Your task to perform on an android device: open app "Duolingo: language lessons" (install if not already installed), go to login, and select forgot password Image 0: 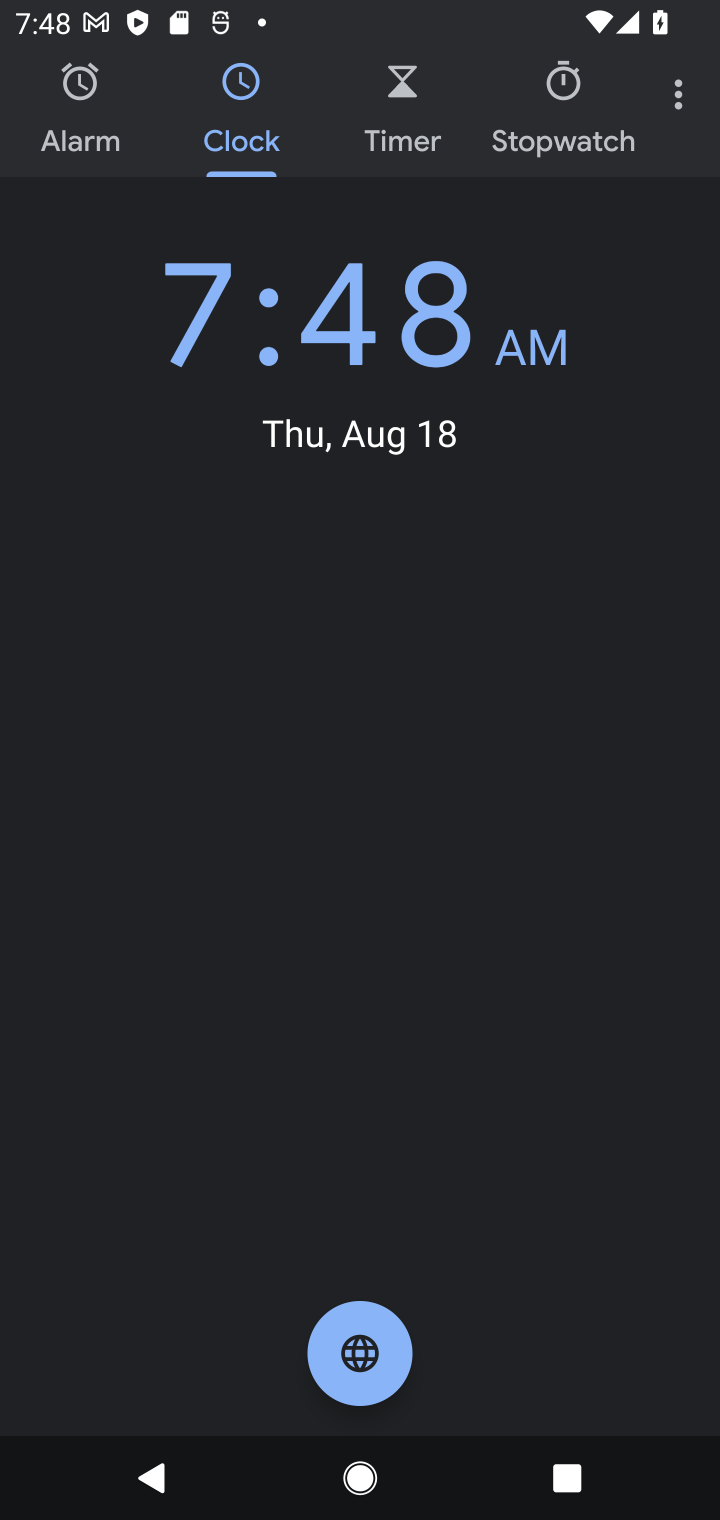
Step 0: press back button
Your task to perform on an android device: open app "Duolingo: language lessons" (install if not already installed), go to login, and select forgot password Image 1: 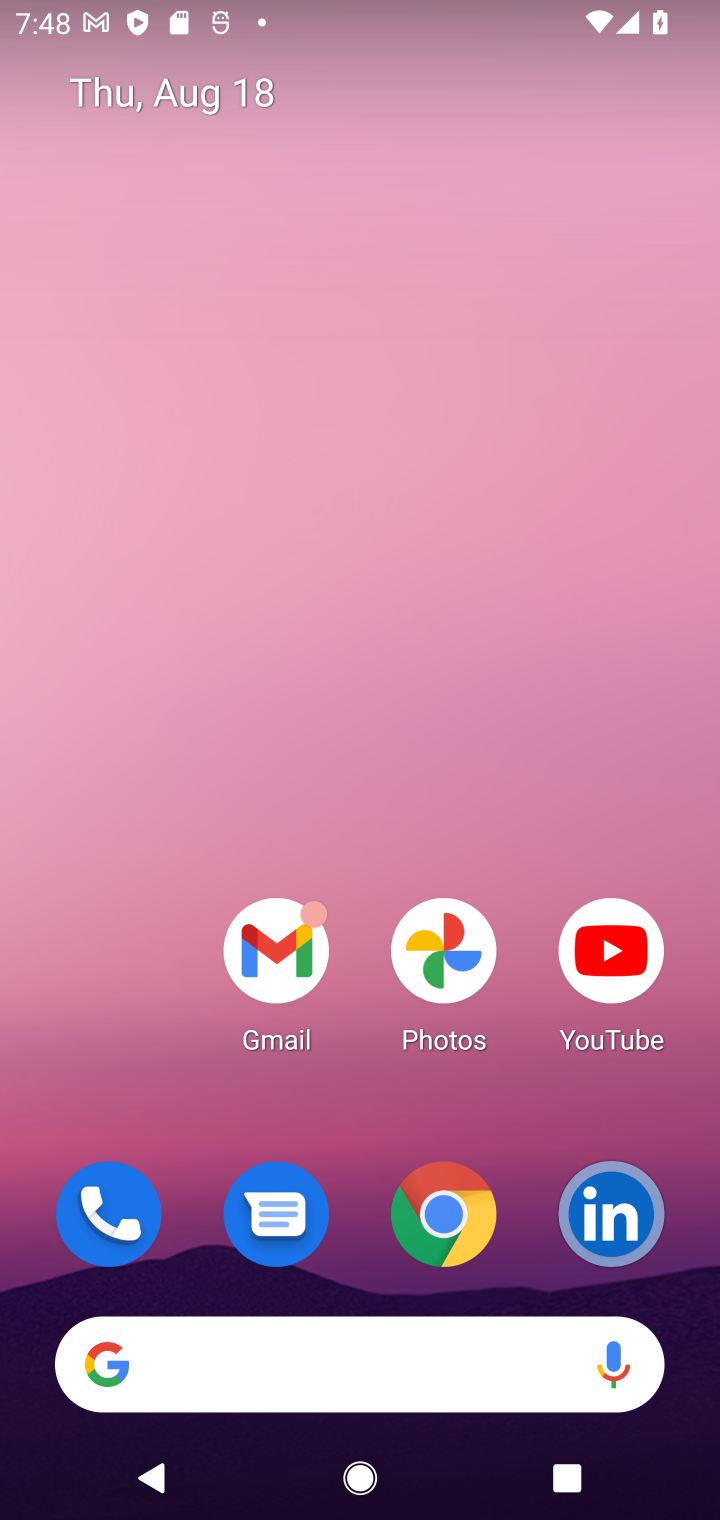
Step 1: press back button
Your task to perform on an android device: open app "Duolingo: language lessons" (install if not already installed), go to login, and select forgot password Image 2: 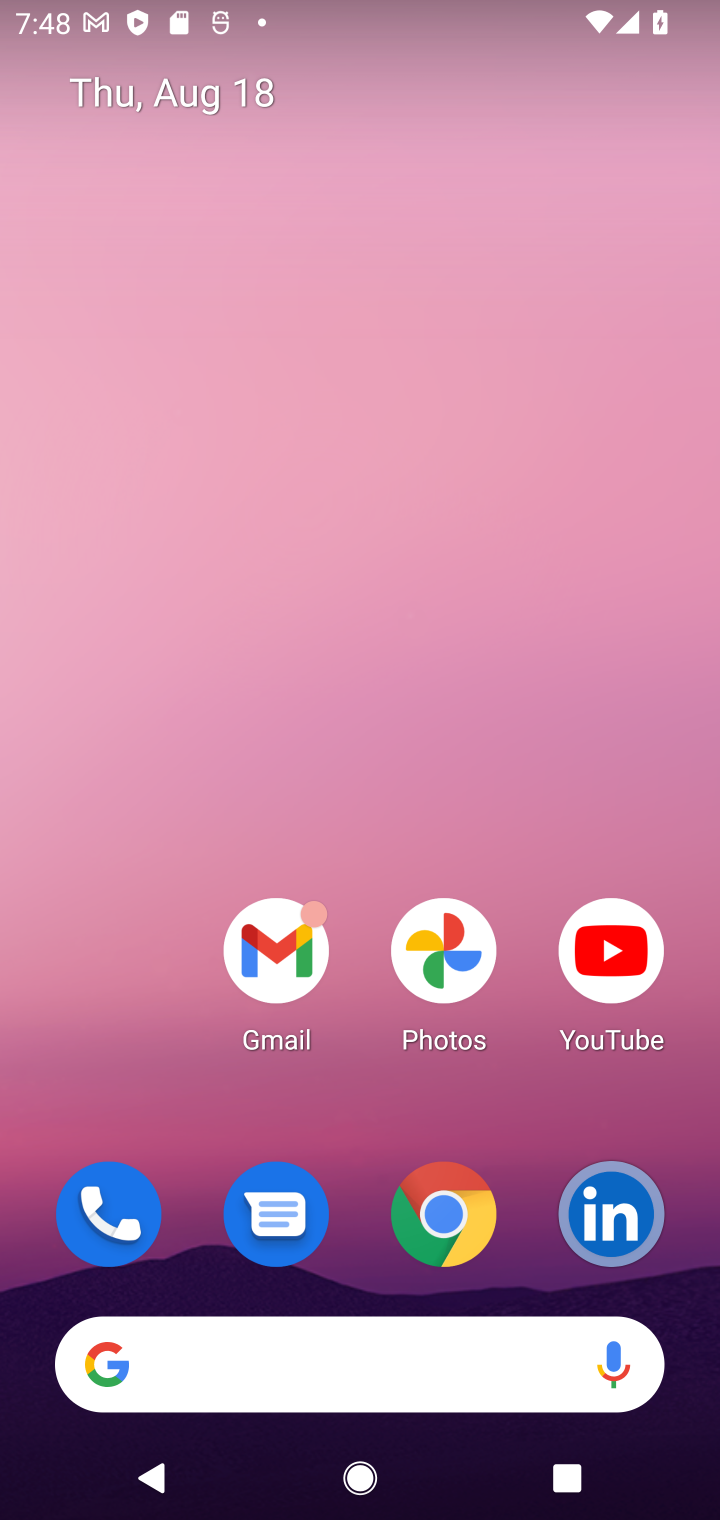
Step 2: drag from (204, 1049) to (173, 253)
Your task to perform on an android device: open app "Duolingo: language lessons" (install if not already installed), go to login, and select forgot password Image 3: 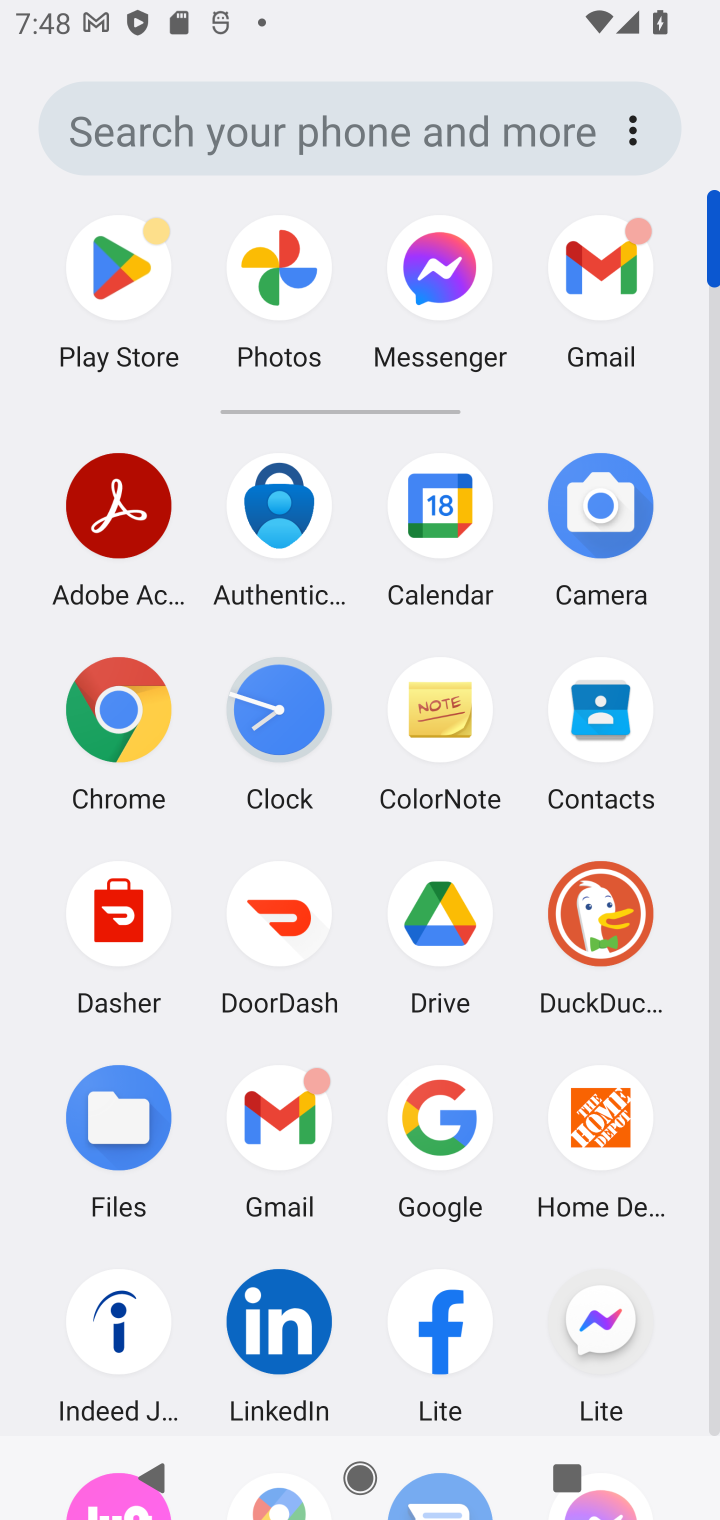
Step 3: click (120, 261)
Your task to perform on an android device: open app "Duolingo: language lessons" (install if not already installed), go to login, and select forgot password Image 4: 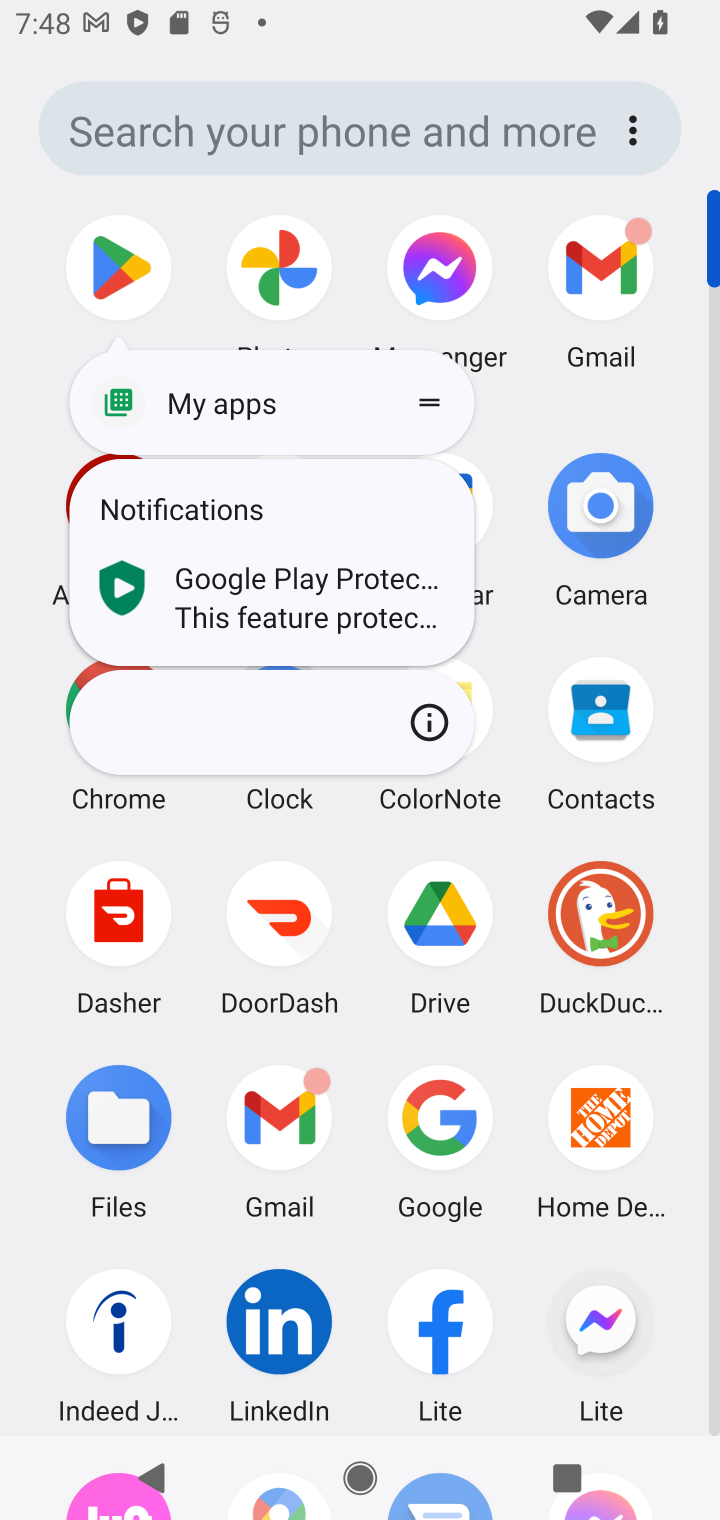
Step 4: click (118, 259)
Your task to perform on an android device: open app "Duolingo: language lessons" (install if not already installed), go to login, and select forgot password Image 5: 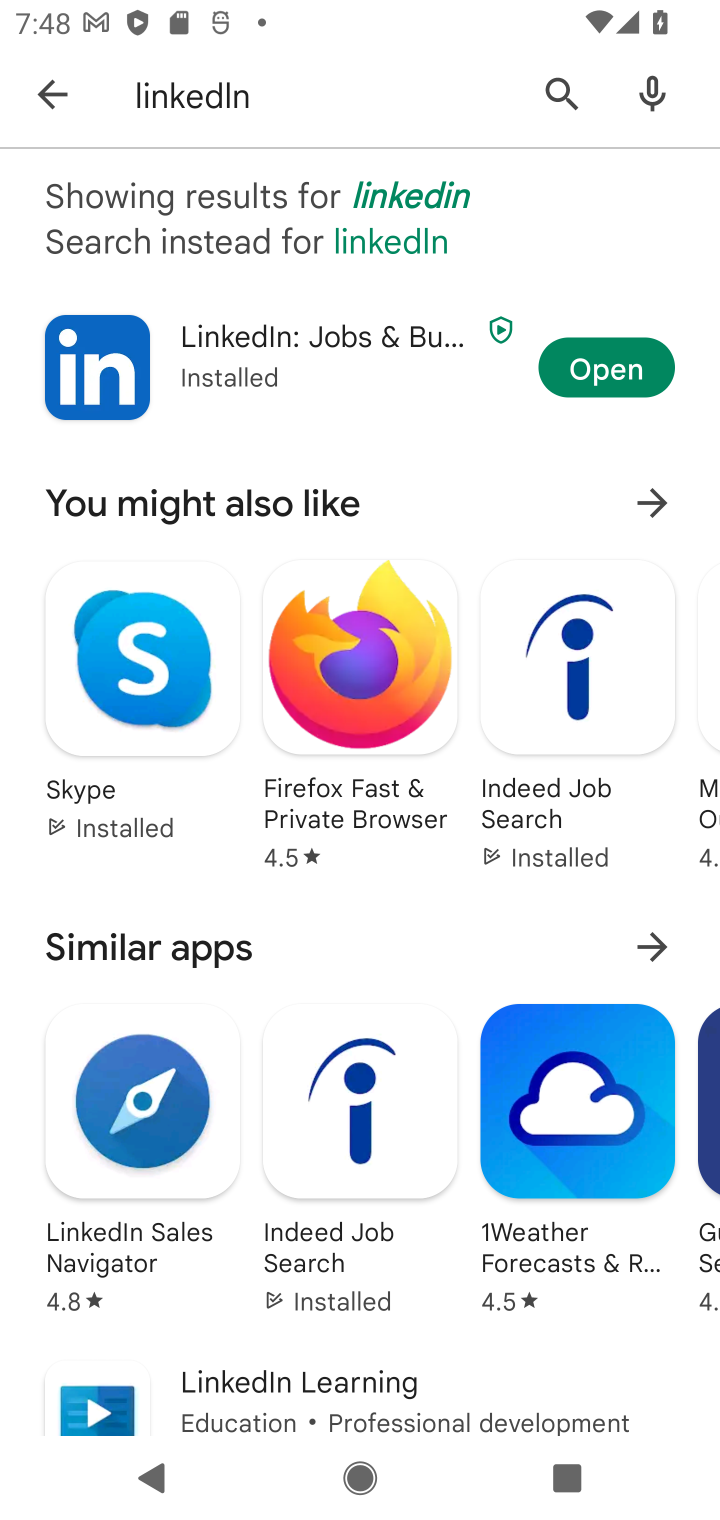
Step 5: click (553, 84)
Your task to perform on an android device: open app "Duolingo: language lessons" (install if not already installed), go to login, and select forgot password Image 6: 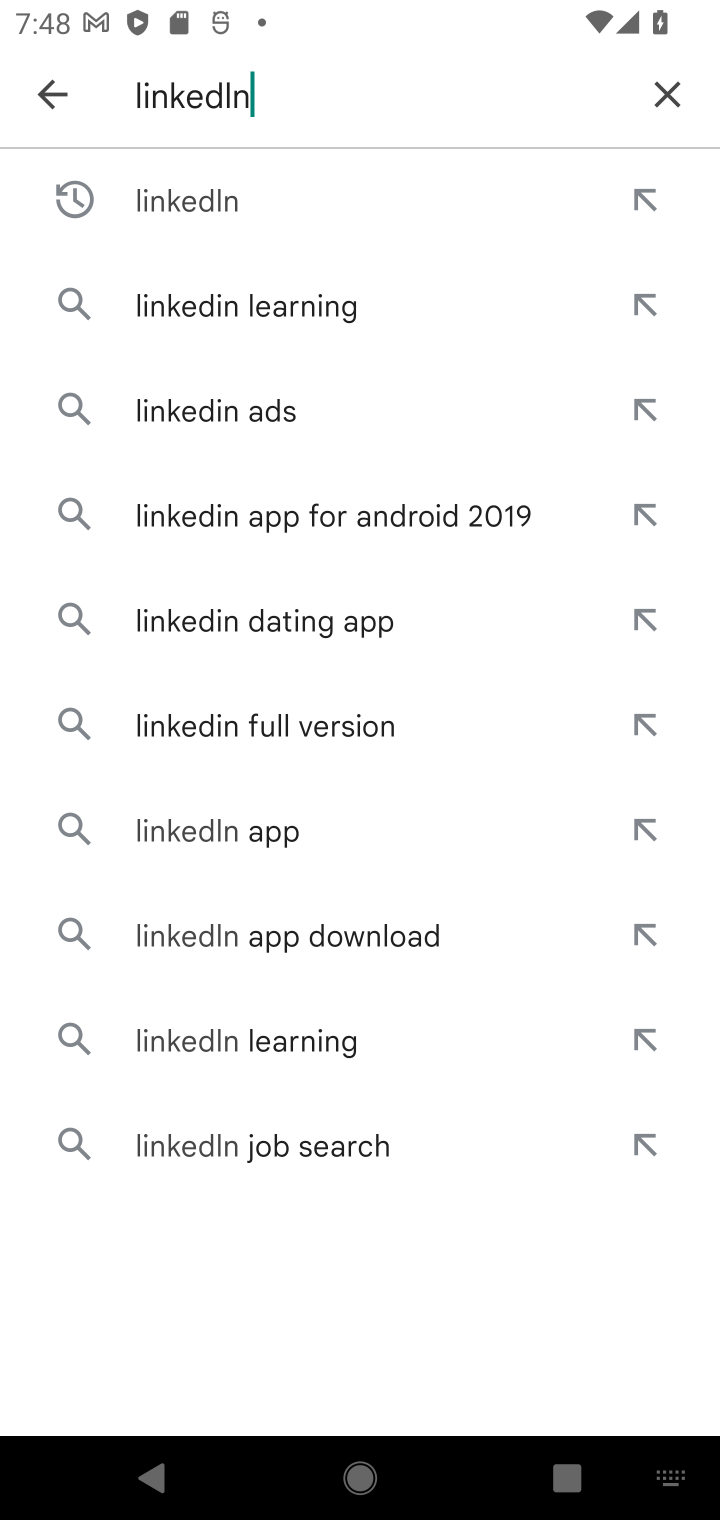
Step 6: click (652, 88)
Your task to perform on an android device: open app "Duolingo: language lessons" (install if not already installed), go to login, and select forgot password Image 7: 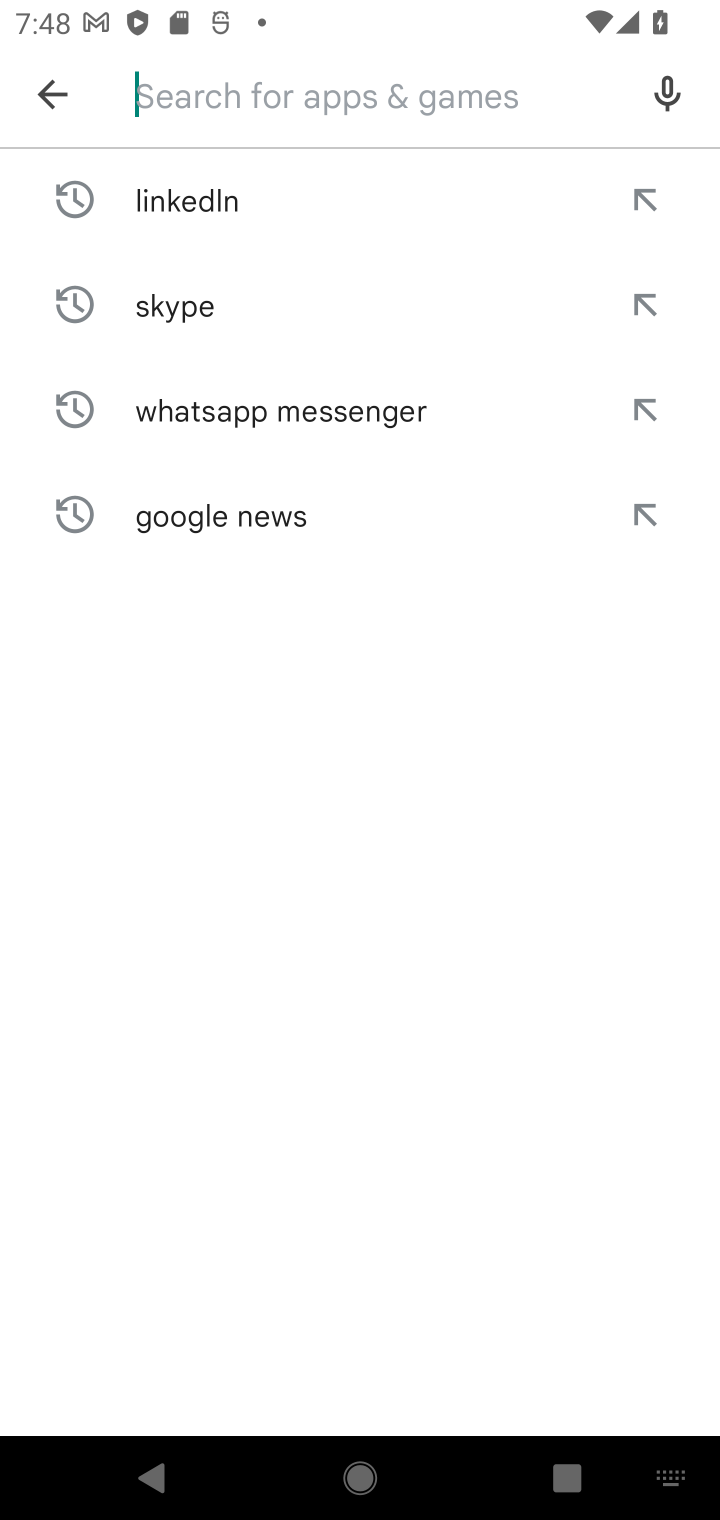
Step 7: type "duolingo lessons"
Your task to perform on an android device: open app "Duolingo: language lessons" (install if not already installed), go to login, and select forgot password Image 8: 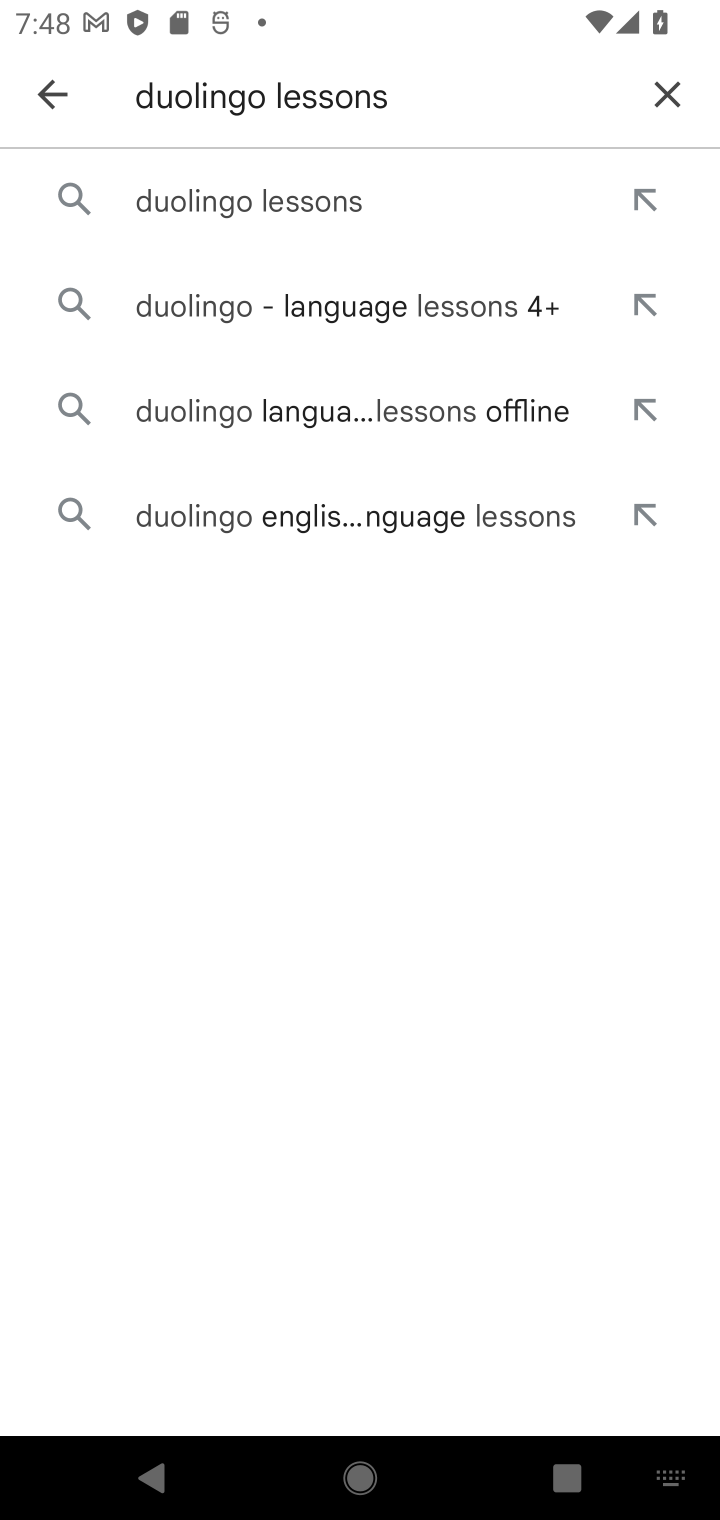
Step 8: click (352, 198)
Your task to perform on an android device: open app "Duolingo: language lessons" (install if not already installed), go to login, and select forgot password Image 9: 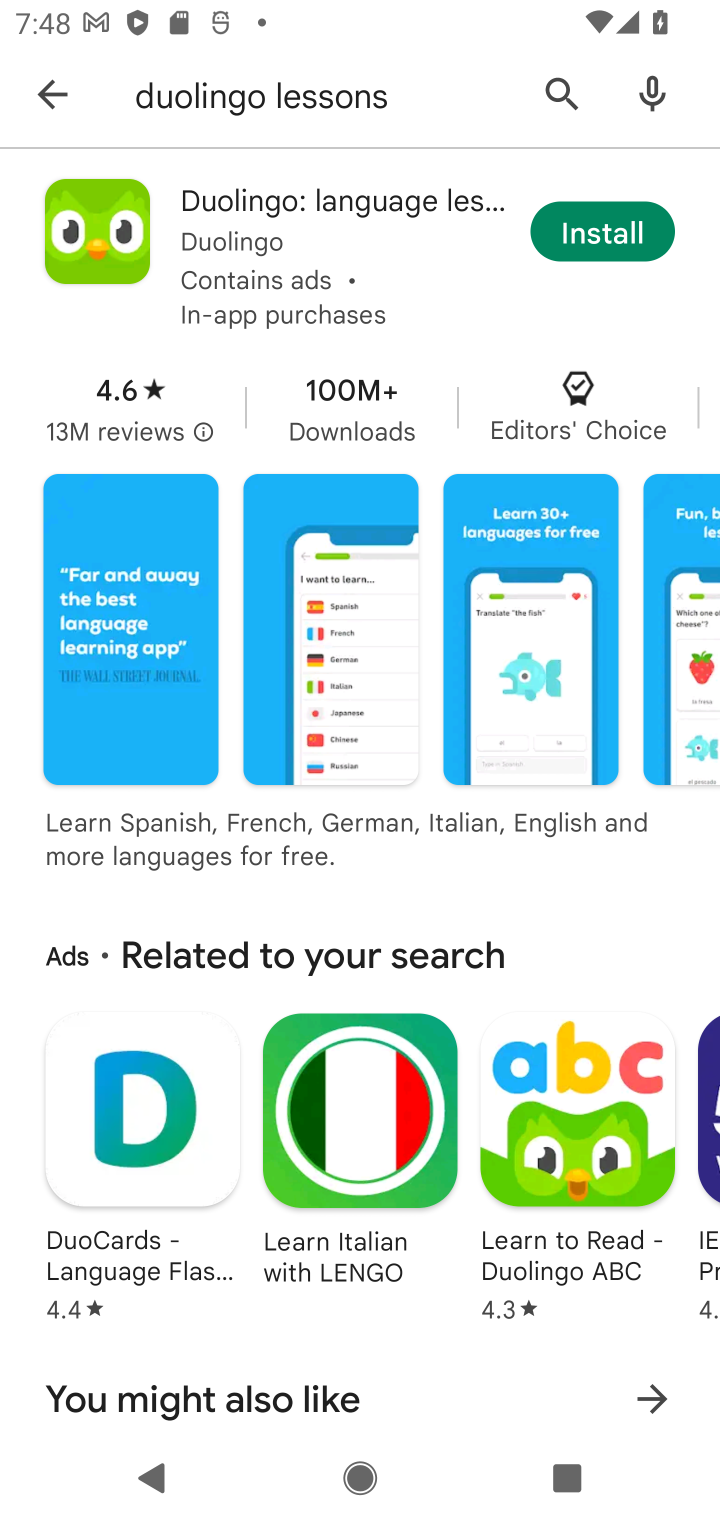
Step 9: click (636, 225)
Your task to perform on an android device: open app "Duolingo: language lessons" (install if not already installed), go to login, and select forgot password Image 10: 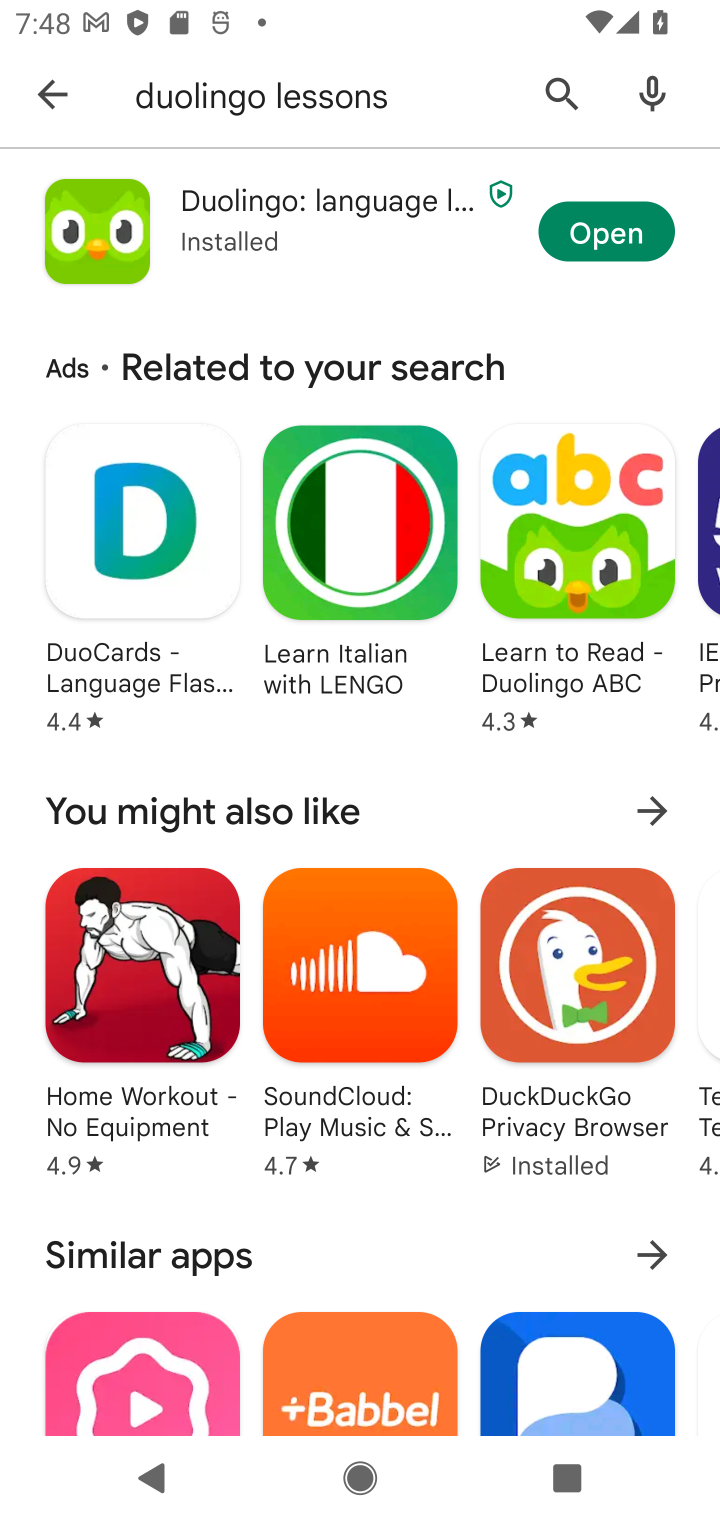
Step 10: click (614, 234)
Your task to perform on an android device: open app "Duolingo: language lessons" (install if not already installed), go to login, and select forgot password Image 11: 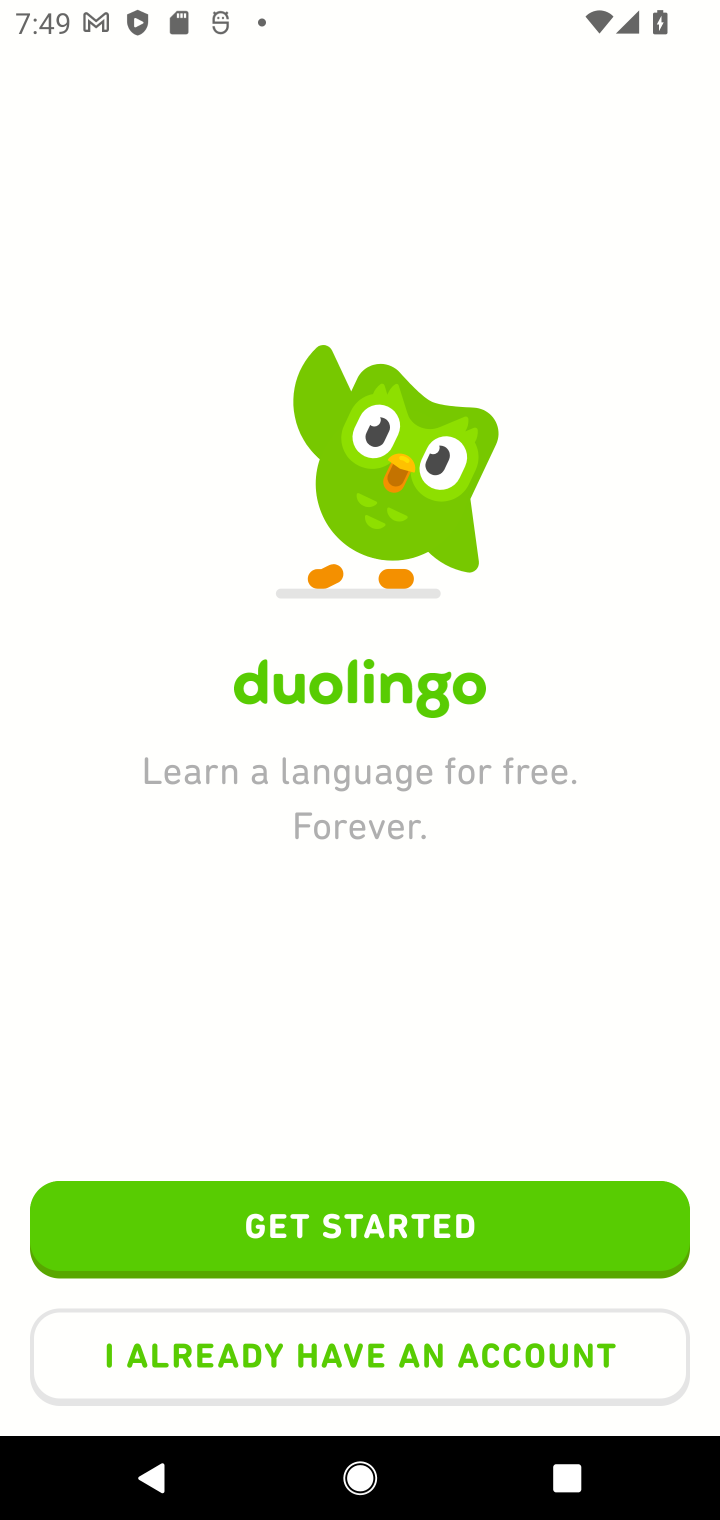
Step 11: click (376, 1347)
Your task to perform on an android device: open app "Duolingo: language lessons" (install if not already installed), go to login, and select forgot password Image 12: 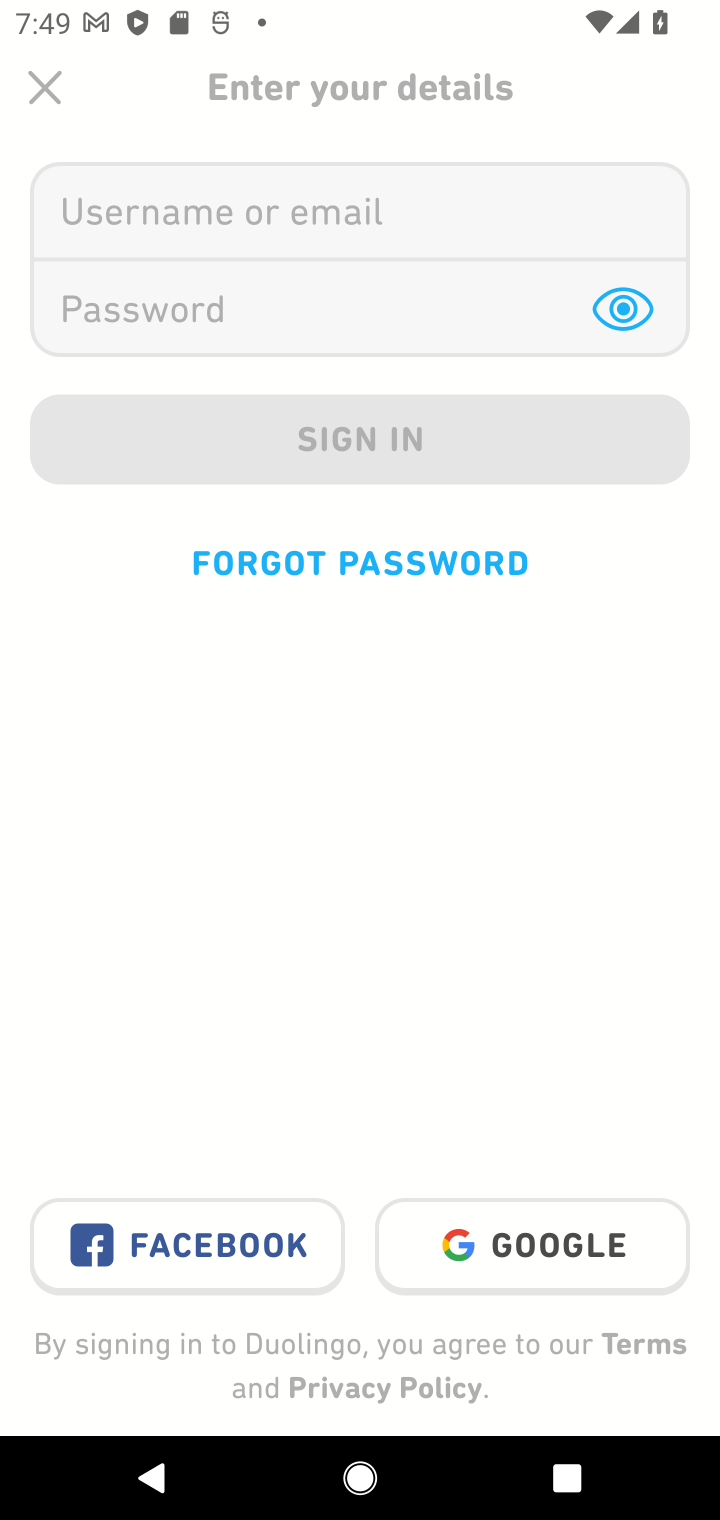
Step 12: click (350, 573)
Your task to perform on an android device: open app "Duolingo: language lessons" (install if not already installed), go to login, and select forgot password Image 13: 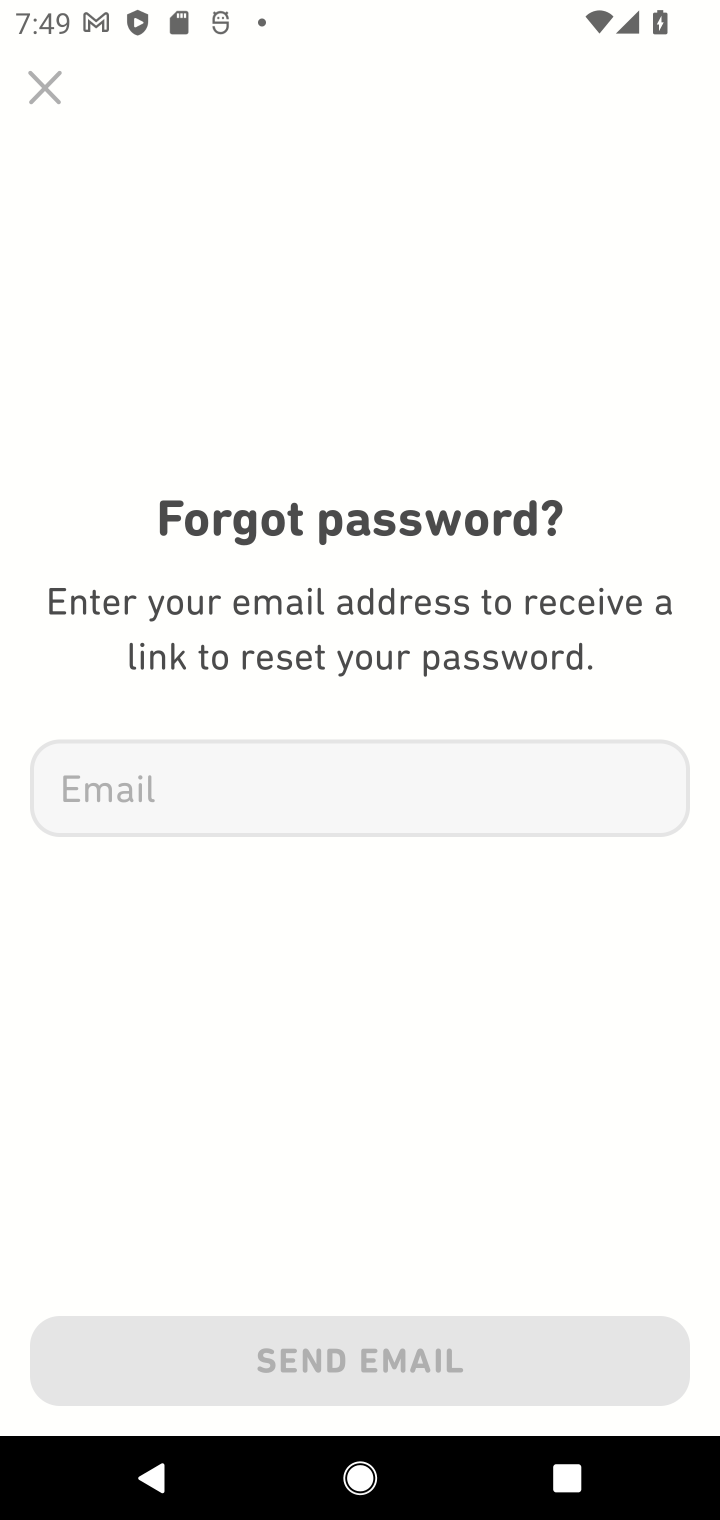
Step 13: task complete